Your task to perform on an android device: Is it going to rain today? Image 0: 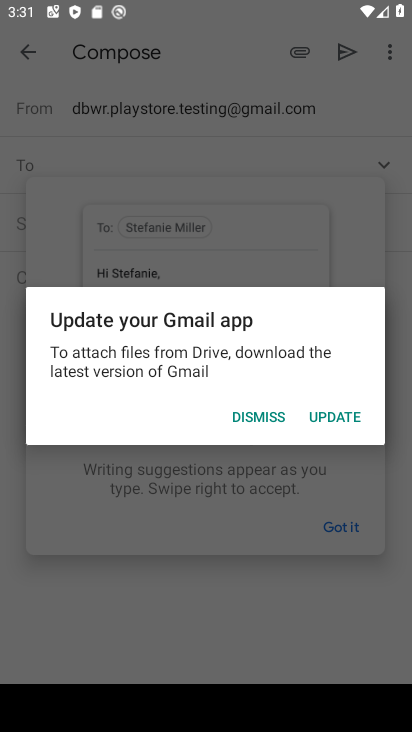
Step 0: press home button
Your task to perform on an android device: Is it going to rain today? Image 1: 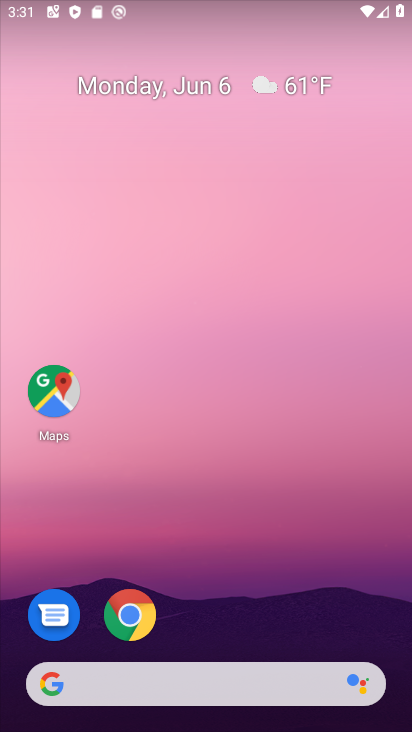
Step 1: click (295, 80)
Your task to perform on an android device: Is it going to rain today? Image 2: 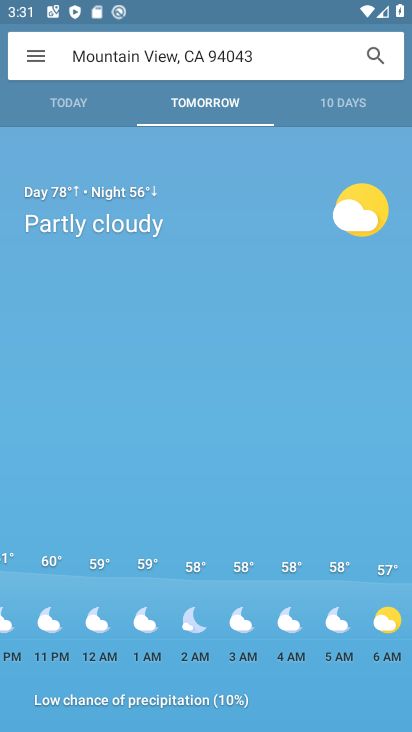
Step 2: click (49, 95)
Your task to perform on an android device: Is it going to rain today? Image 3: 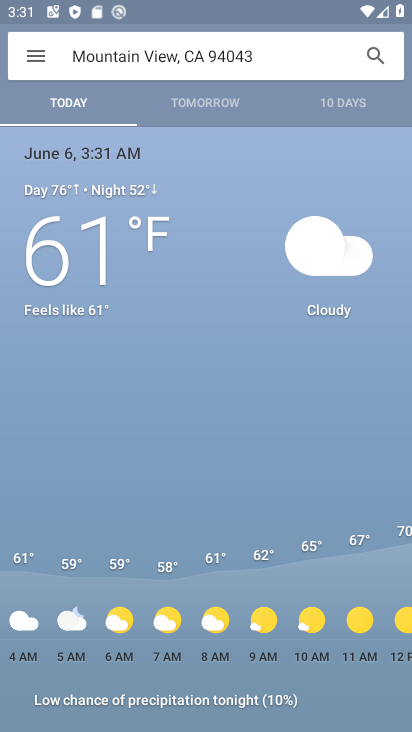
Step 3: task complete